Your task to perform on an android device: Empty the shopping cart on amazon.com. Search for "macbook pro 15 inch" on amazon.com, select the first entry, and add it to the cart. Image 0: 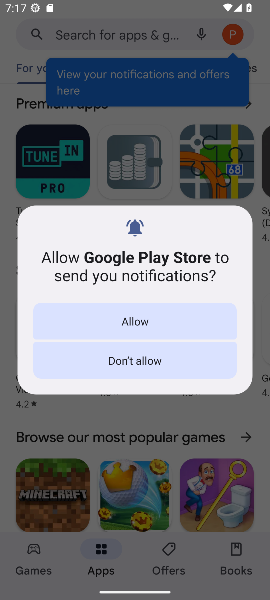
Step 0: press home button
Your task to perform on an android device: Empty the shopping cart on amazon.com. Search for "macbook pro 15 inch" on amazon.com, select the first entry, and add it to the cart. Image 1: 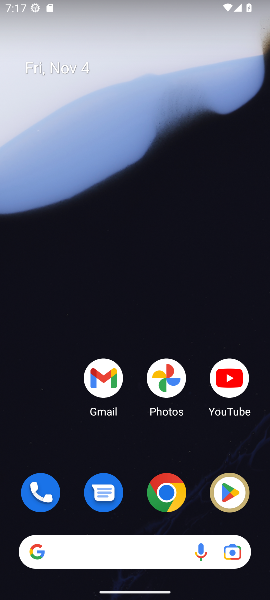
Step 1: drag from (135, 440) to (126, 70)
Your task to perform on an android device: Empty the shopping cart on amazon.com. Search for "macbook pro 15 inch" on amazon.com, select the first entry, and add it to the cart. Image 2: 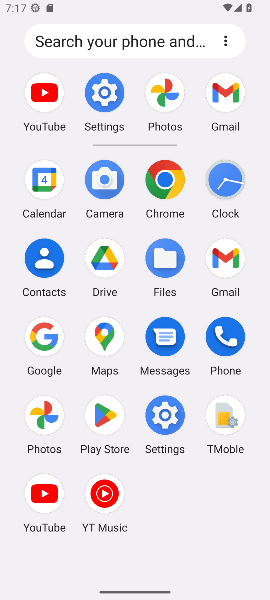
Step 2: click (165, 178)
Your task to perform on an android device: Empty the shopping cart on amazon.com. Search for "macbook pro 15 inch" on amazon.com, select the first entry, and add it to the cart. Image 3: 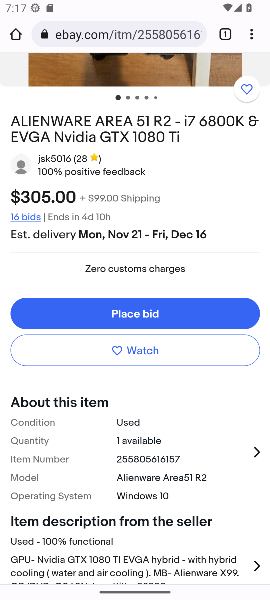
Step 3: click (121, 35)
Your task to perform on an android device: Empty the shopping cart on amazon.com. Search for "macbook pro 15 inch" on amazon.com, select the first entry, and add it to the cart. Image 4: 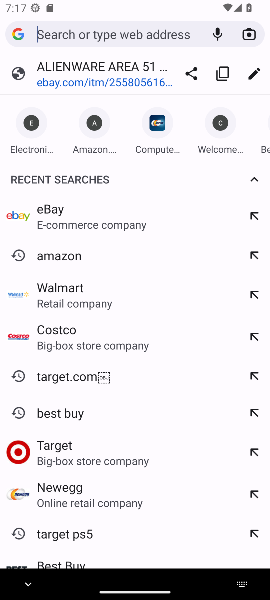
Step 4: type "amazon.com"
Your task to perform on an android device: Empty the shopping cart on amazon.com. Search for "macbook pro 15 inch" on amazon.com, select the first entry, and add it to the cart. Image 5: 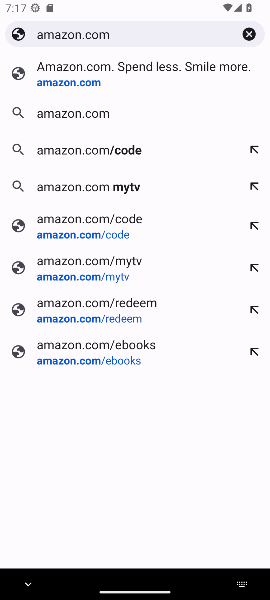
Step 5: press enter
Your task to perform on an android device: Empty the shopping cart on amazon.com. Search for "macbook pro 15 inch" on amazon.com, select the first entry, and add it to the cart. Image 6: 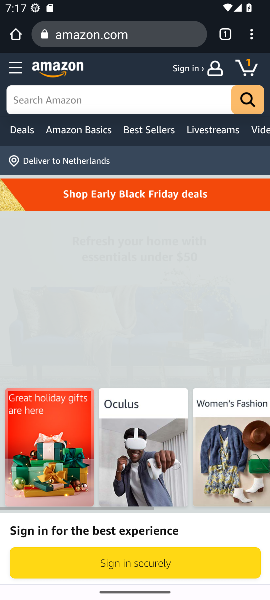
Step 6: click (250, 68)
Your task to perform on an android device: Empty the shopping cart on amazon.com. Search for "macbook pro 15 inch" on amazon.com, select the first entry, and add it to the cart. Image 7: 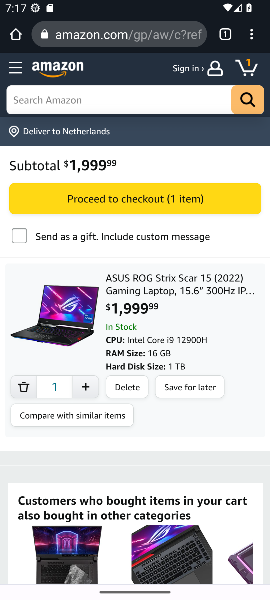
Step 7: click (24, 384)
Your task to perform on an android device: Empty the shopping cart on amazon.com. Search for "macbook pro 15 inch" on amazon.com, select the first entry, and add it to the cart. Image 8: 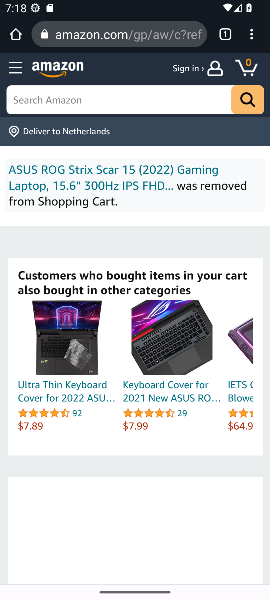
Step 8: click (140, 105)
Your task to perform on an android device: Empty the shopping cart on amazon.com. Search for "macbook pro 15 inch" on amazon.com, select the first entry, and add it to the cart. Image 9: 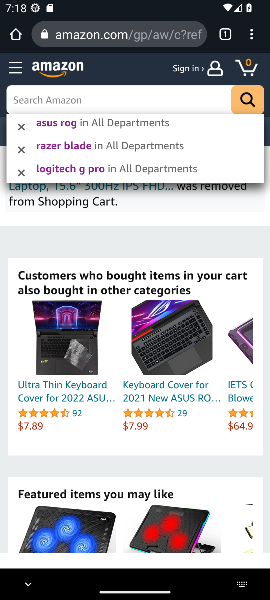
Step 9: type "macbook pro 15 inch"
Your task to perform on an android device: Empty the shopping cart on amazon.com. Search for "macbook pro 15 inch" on amazon.com, select the first entry, and add it to the cart. Image 10: 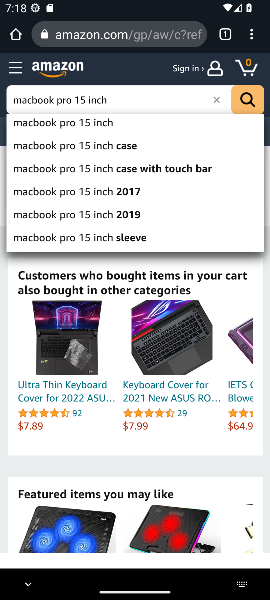
Step 10: press enter
Your task to perform on an android device: Empty the shopping cart on amazon.com. Search for "macbook pro 15 inch" on amazon.com, select the first entry, and add it to the cart. Image 11: 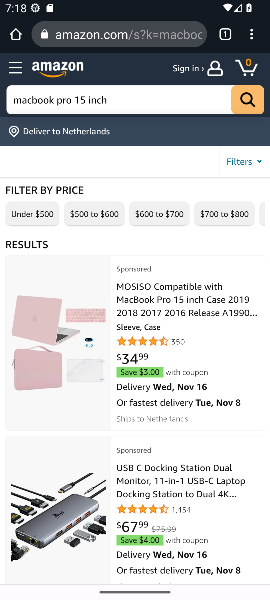
Step 11: drag from (213, 522) to (228, 246)
Your task to perform on an android device: Empty the shopping cart on amazon.com. Search for "macbook pro 15 inch" on amazon.com, select the first entry, and add it to the cart. Image 12: 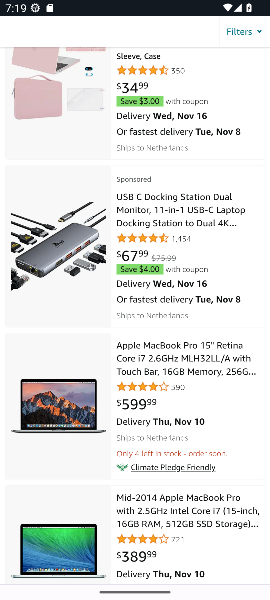
Step 12: click (172, 360)
Your task to perform on an android device: Empty the shopping cart on amazon.com. Search for "macbook pro 15 inch" on amazon.com, select the first entry, and add it to the cart. Image 13: 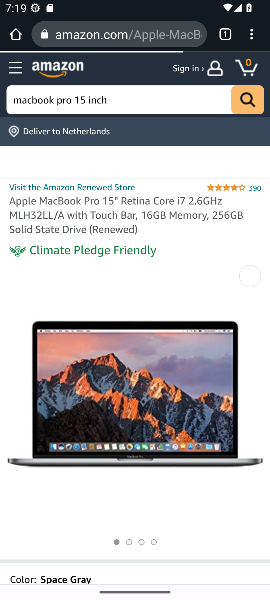
Step 13: drag from (188, 478) to (197, 206)
Your task to perform on an android device: Empty the shopping cart on amazon.com. Search for "macbook pro 15 inch" on amazon.com, select the first entry, and add it to the cart. Image 14: 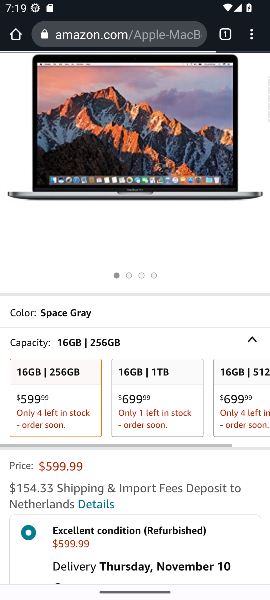
Step 14: drag from (158, 467) to (194, 195)
Your task to perform on an android device: Empty the shopping cart on amazon.com. Search for "macbook pro 15 inch" on amazon.com, select the first entry, and add it to the cart. Image 15: 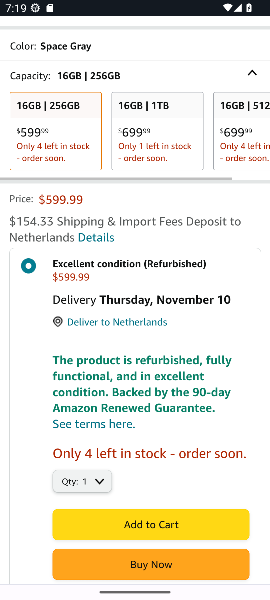
Step 15: click (194, 524)
Your task to perform on an android device: Empty the shopping cart on amazon.com. Search for "macbook pro 15 inch" on amazon.com, select the first entry, and add it to the cart. Image 16: 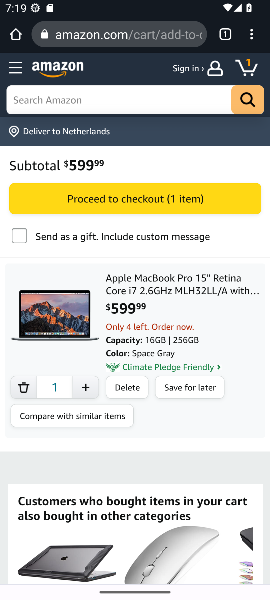
Step 16: task complete